Your task to perform on an android device: Open Google Chrome and click the shortcut for Amazon.com Image 0: 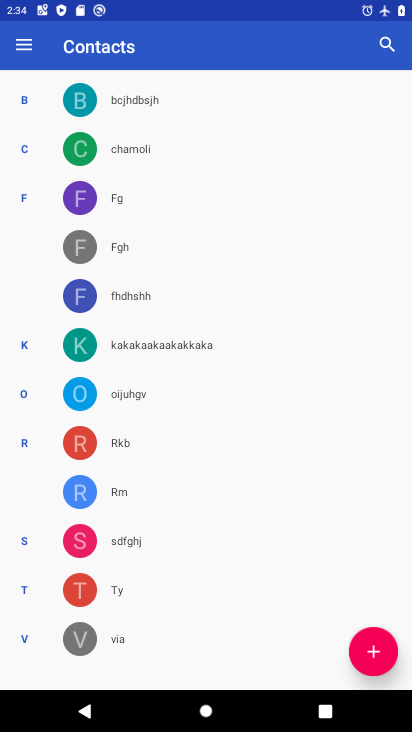
Step 0: drag from (263, 583) to (260, 206)
Your task to perform on an android device: Open Google Chrome and click the shortcut for Amazon.com Image 1: 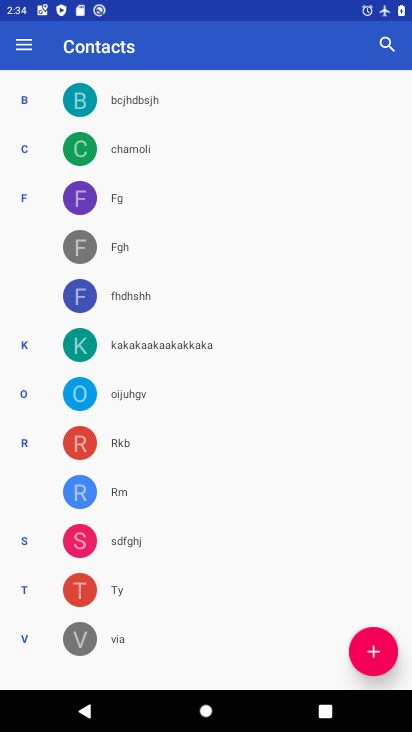
Step 1: press home button
Your task to perform on an android device: Open Google Chrome and click the shortcut for Amazon.com Image 2: 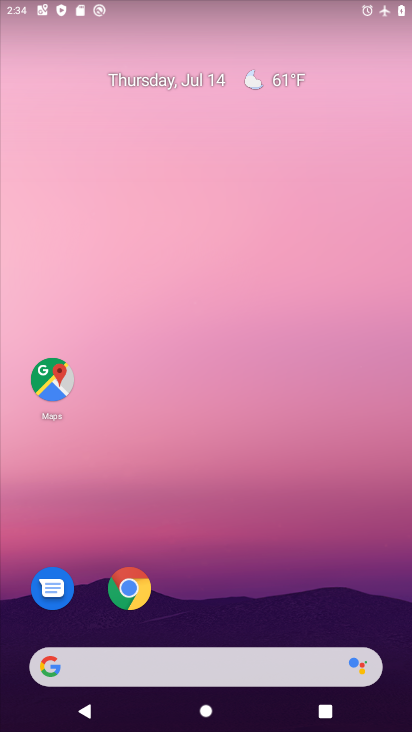
Step 2: drag from (203, 634) to (257, 241)
Your task to perform on an android device: Open Google Chrome and click the shortcut for Amazon.com Image 3: 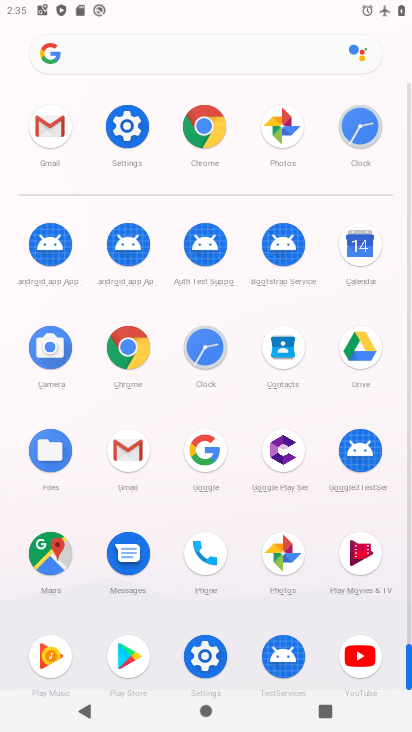
Step 3: click (126, 352)
Your task to perform on an android device: Open Google Chrome and click the shortcut for Amazon.com Image 4: 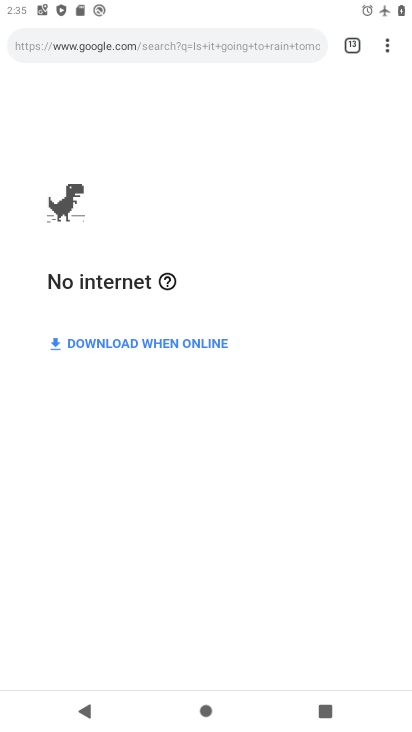
Step 4: click (394, 39)
Your task to perform on an android device: Open Google Chrome and click the shortcut for Amazon.com Image 5: 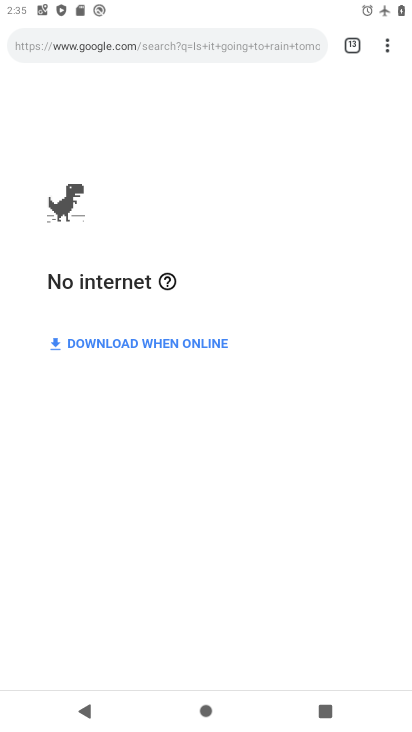
Step 5: click (394, 39)
Your task to perform on an android device: Open Google Chrome and click the shortcut for Amazon.com Image 6: 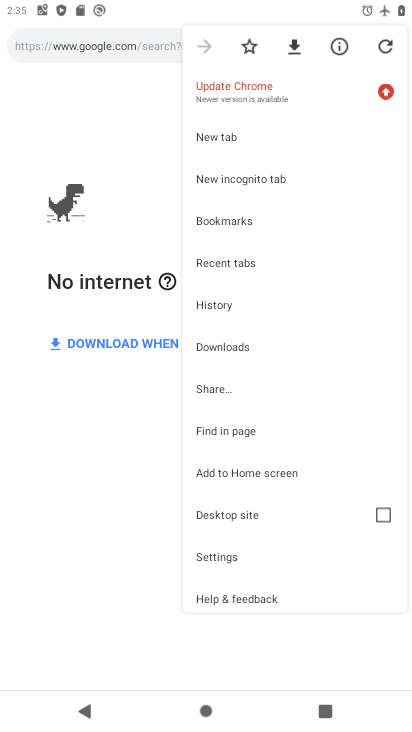
Step 6: click (228, 140)
Your task to perform on an android device: Open Google Chrome and click the shortcut for Amazon.com Image 7: 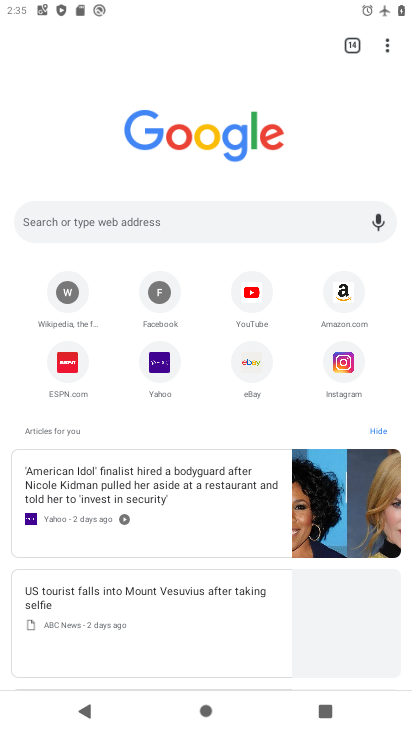
Step 7: click (344, 288)
Your task to perform on an android device: Open Google Chrome and click the shortcut for Amazon.com Image 8: 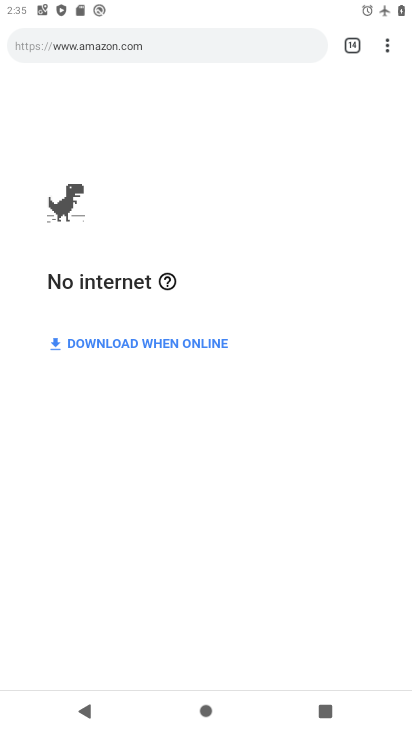
Step 8: task complete